Your task to perform on an android device: When is my next appointment? Image 0: 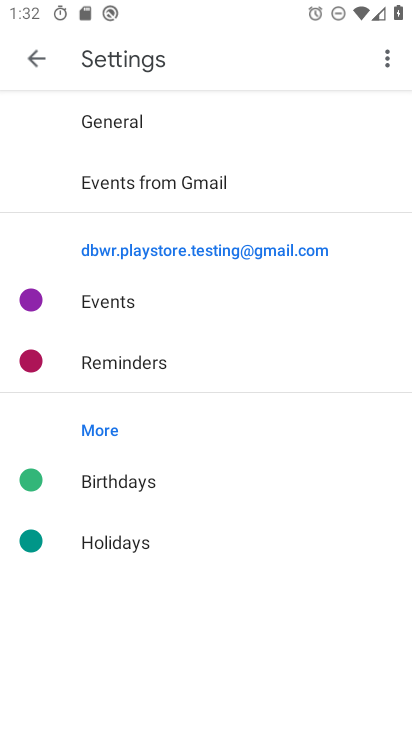
Step 0: press home button
Your task to perform on an android device: When is my next appointment? Image 1: 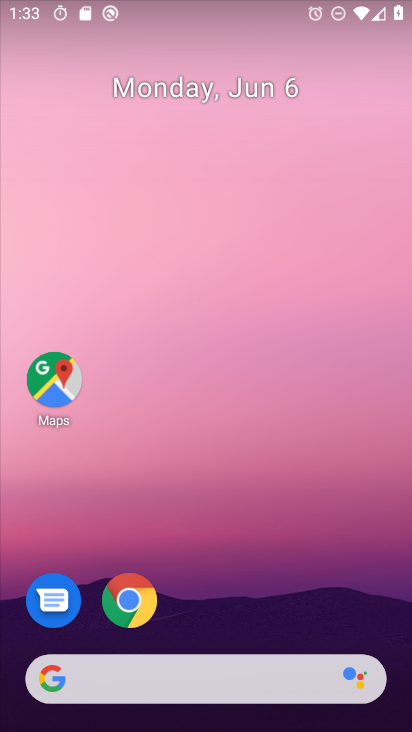
Step 1: drag from (196, 623) to (200, 195)
Your task to perform on an android device: When is my next appointment? Image 2: 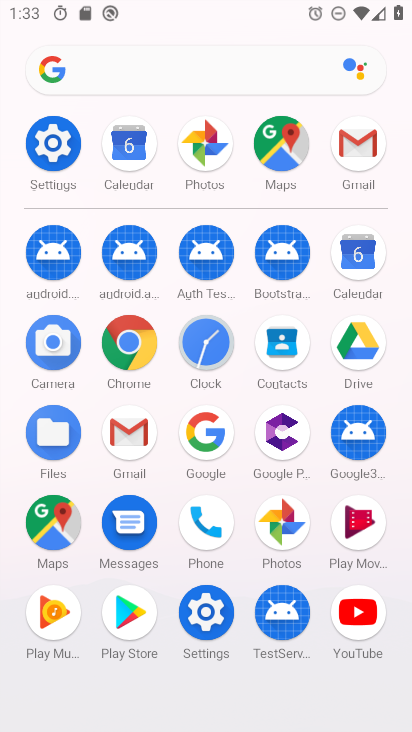
Step 2: click (333, 281)
Your task to perform on an android device: When is my next appointment? Image 3: 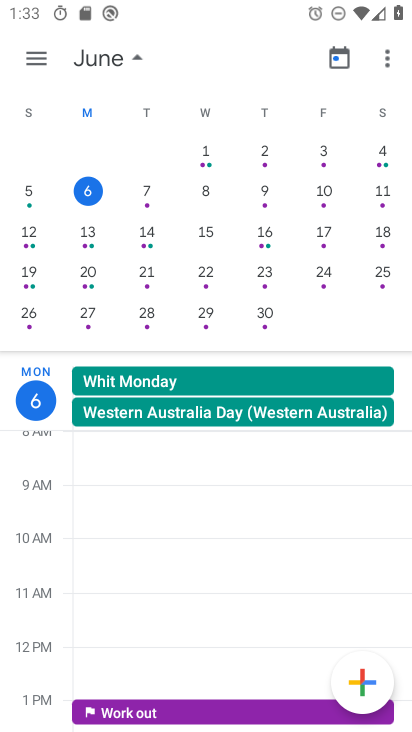
Step 3: task complete